Your task to perform on an android device: open app "VLC for Android" Image 0: 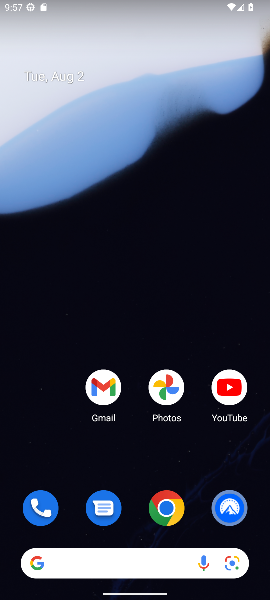
Step 0: drag from (157, 455) to (144, 31)
Your task to perform on an android device: open app "VLC for Android" Image 1: 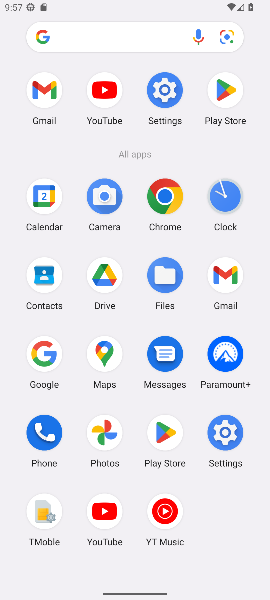
Step 1: click (219, 103)
Your task to perform on an android device: open app "VLC for Android" Image 2: 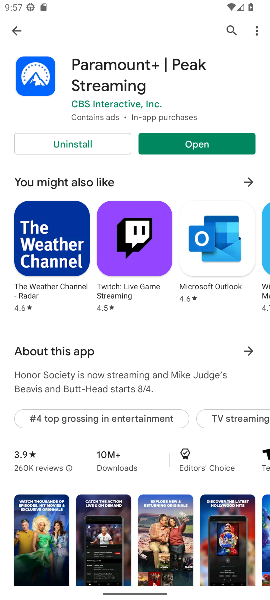
Step 2: click (232, 25)
Your task to perform on an android device: open app "VLC for Android" Image 3: 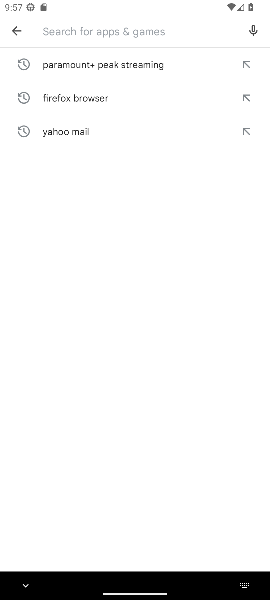
Step 3: type "VLC for Android"
Your task to perform on an android device: open app "VLC for Android" Image 4: 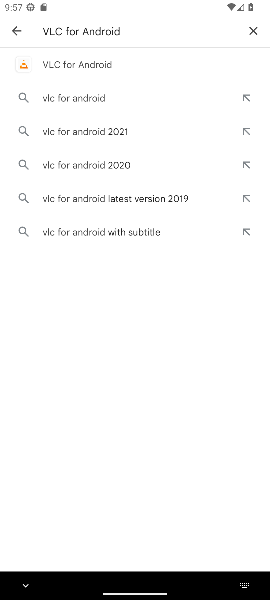
Step 4: click (81, 70)
Your task to perform on an android device: open app "VLC for Android" Image 5: 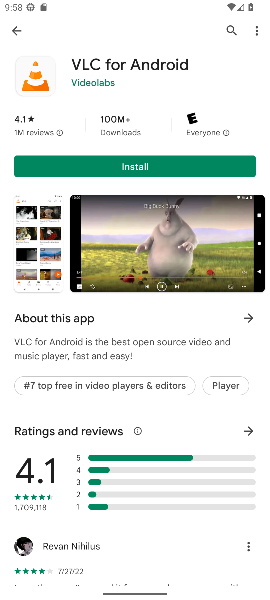
Step 5: task complete